Your task to perform on an android device: Open battery settings Image 0: 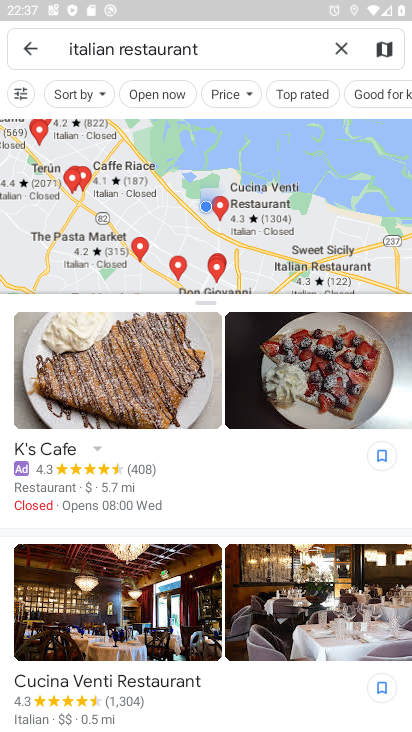
Step 0: press home button
Your task to perform on an android device: Open battery settings Image 1: 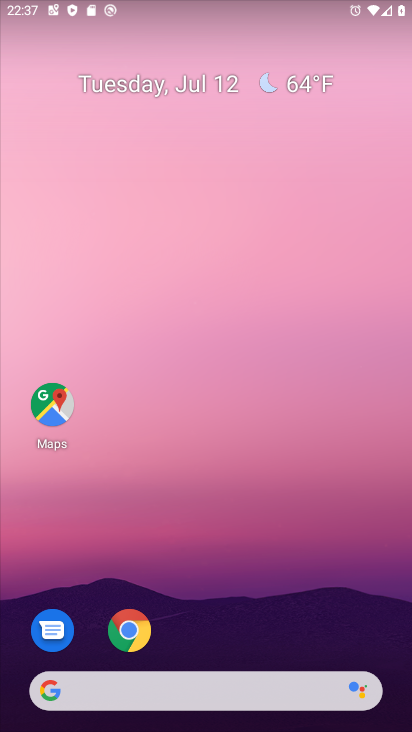
Step 1: drag from (210, 661) to (334, 14)
Your task to perform on an android device: Open battery settings Image 2: 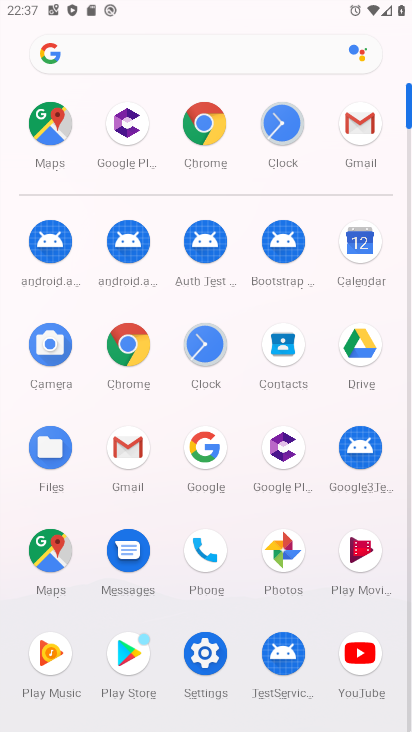
Step 2: click (202, 661)
Your task to perform on an android device: Open battery settings Image 3: 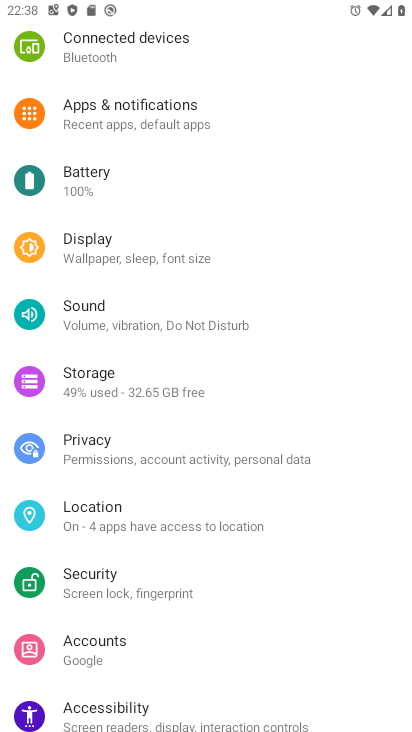
Step 3: click (89, 169)
Your task to perform on an android device: Open battery settings Image 4: 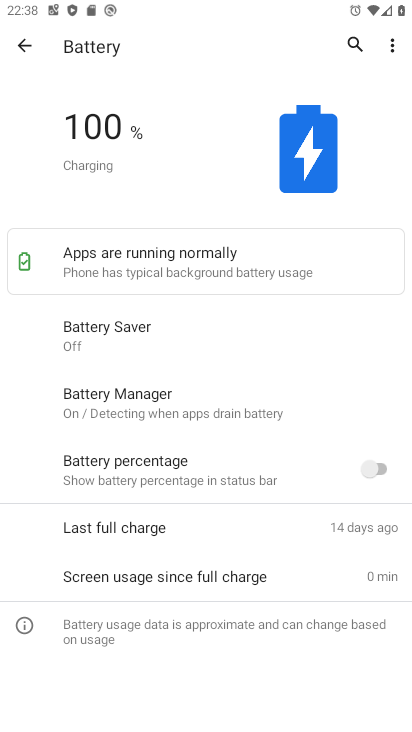
Step 4: task complete